Your task to perform on an android device: see tabs open on other devices in the chrome app Image 0: 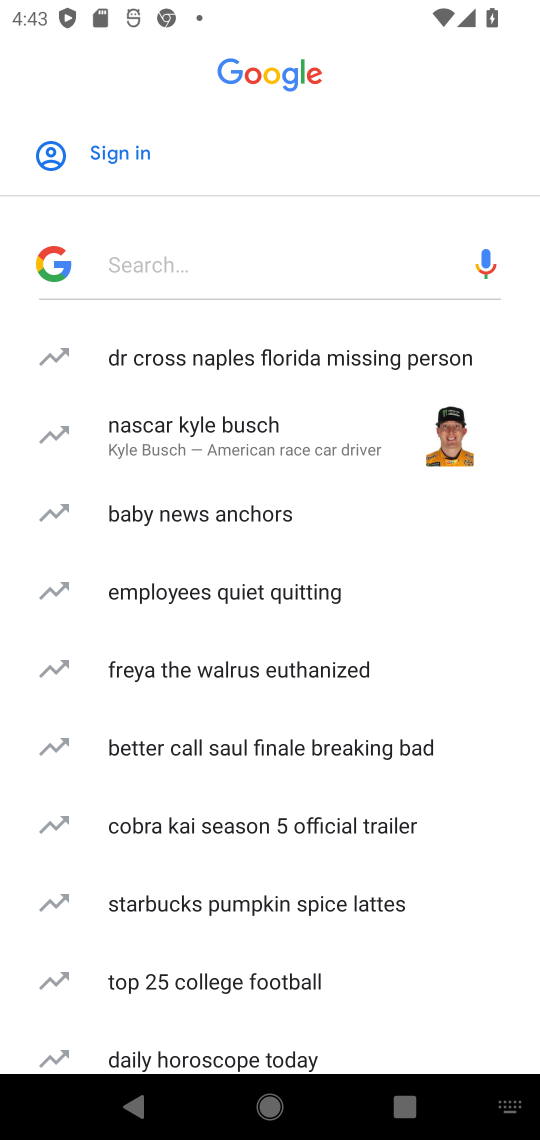
Step 0: press home button
Your task to perform on an android device: see tabs open on other devices in the chrome app Image 1: 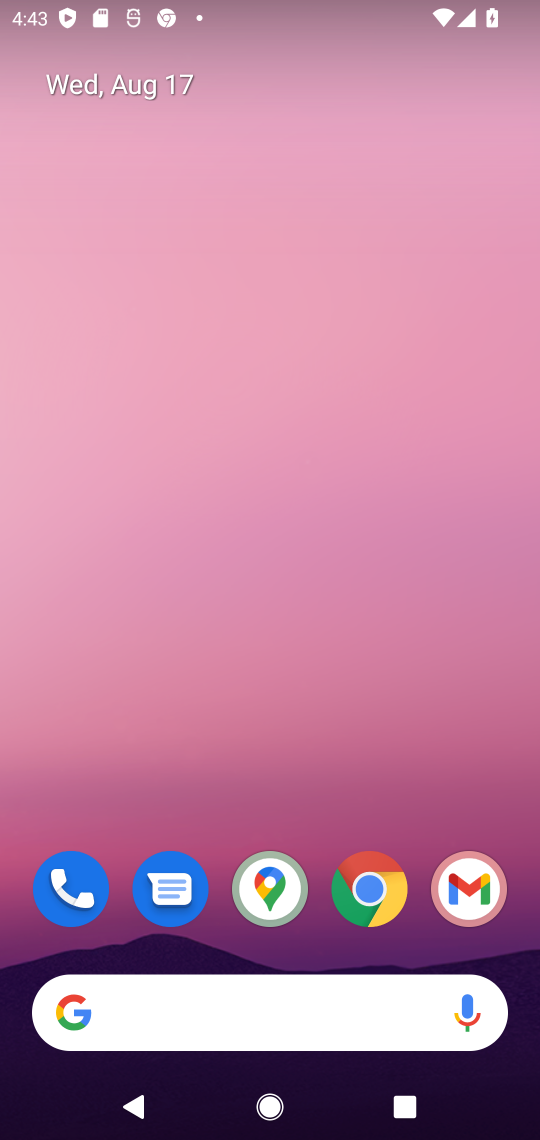
Step 1: click (373, 886)
Your task to perform on an android device: see tabs open on other devices in the chrome app Image 2: 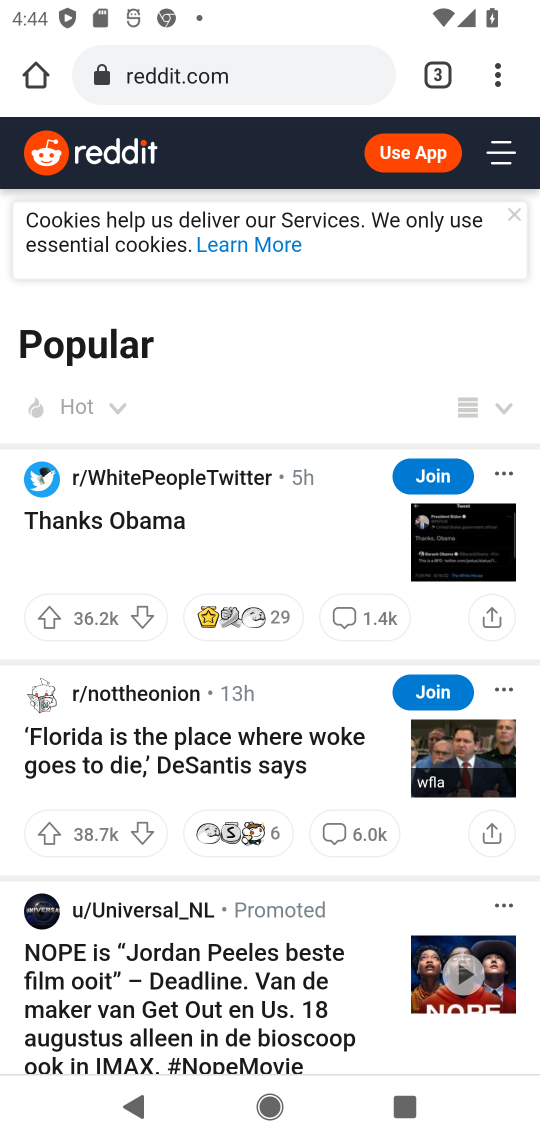
Step 2: click (505, 69)
Your task to perform on an android device: see tabs open on other devices in the chrome app Image 3: 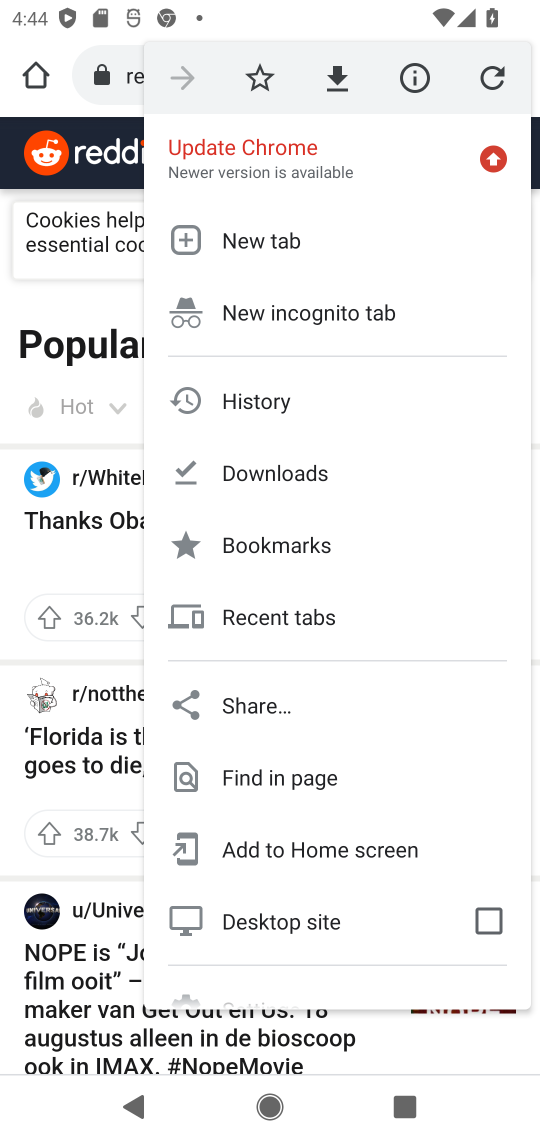
Step 3: click (275, 626)
Your task to perform on an android device: see tabs open on other devices in the chrome app Image 4: 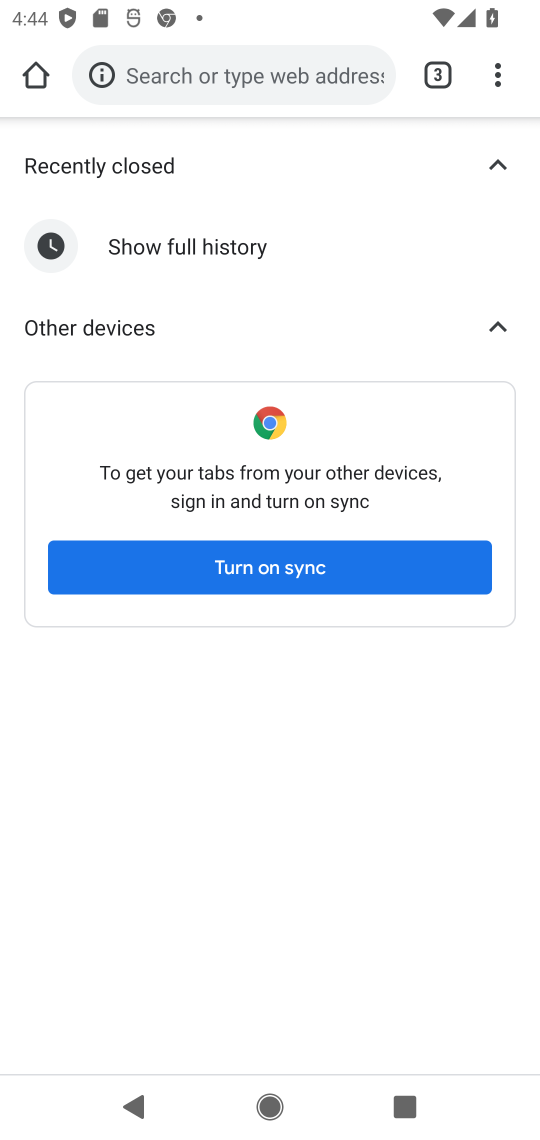
Step 4: task complete